Your task to perform on an android device: Clear all items from cart on bestbuy.com. Search for "razer thresher" on bestbuy.com, select the first entry, add it to the cart, then select checkout. Image 0: 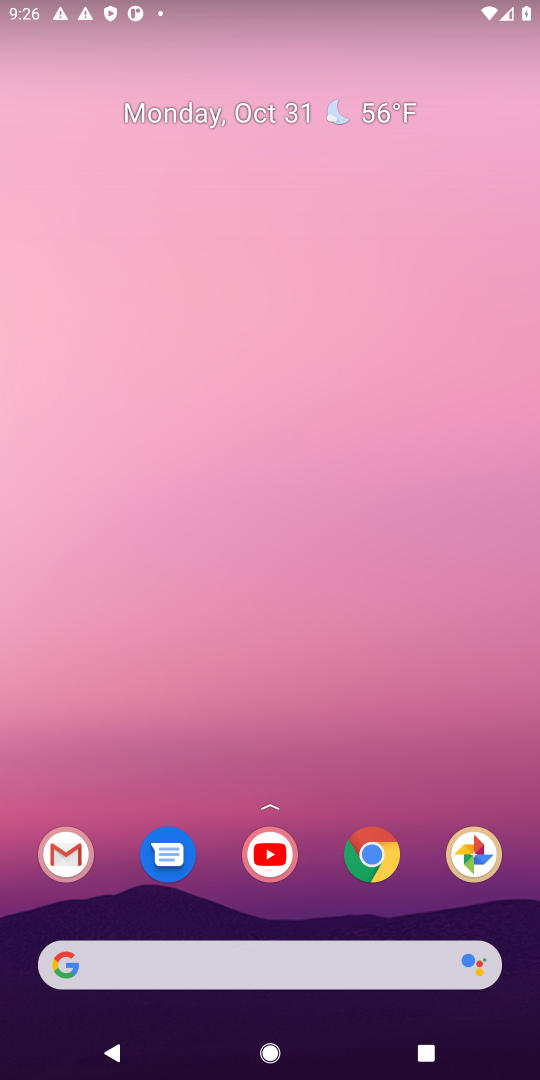
Step 0: click (301, 980)
Your task to perform on an android device: Clear all items from cart on bestbuy.com. Search for "razer thresher" on bestbuy.com, select the first entry, add it to the cart, then select checkout. Image 1: 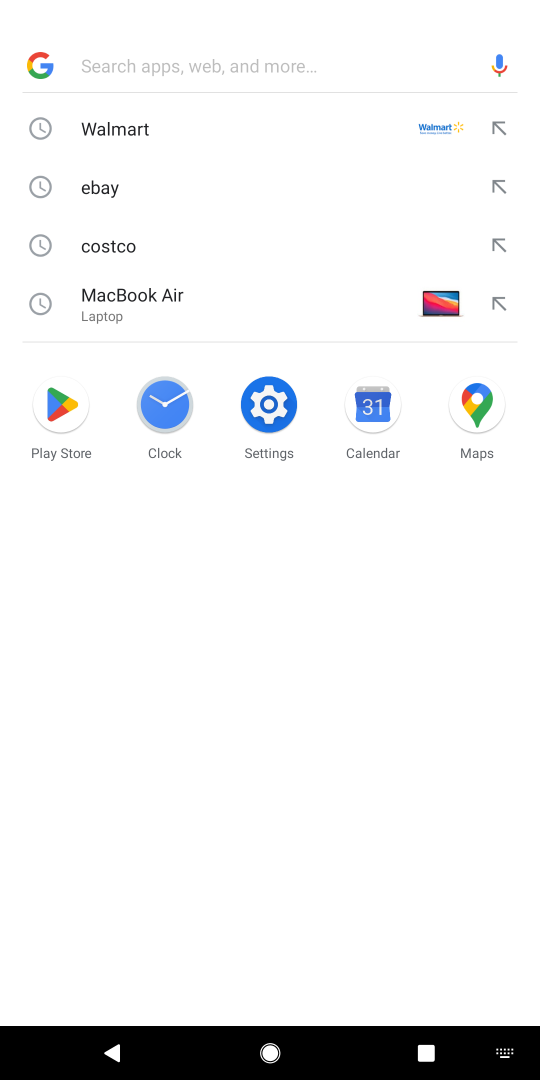
Step 1: type "bestbuy"
Your task to perform on an android device: Clear all items from cart on bestbuy.com. Search for "razer thresher" on bestbuy.com, select the first entry, add it to the cart, then select checkout. Image 2: 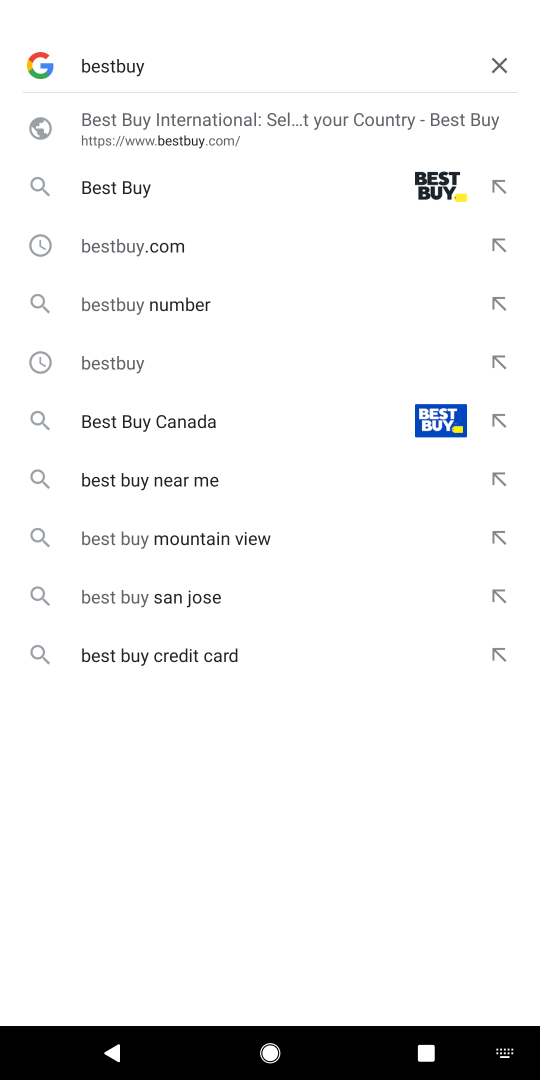
Step 2: click (172, 134)
Your task to perform on an android device: Clear all items from cart on bestbuy.com. Search for "razer thresher" on bestbuy.com, select the first entry, add it to the cart, then select checkout. Image 3: 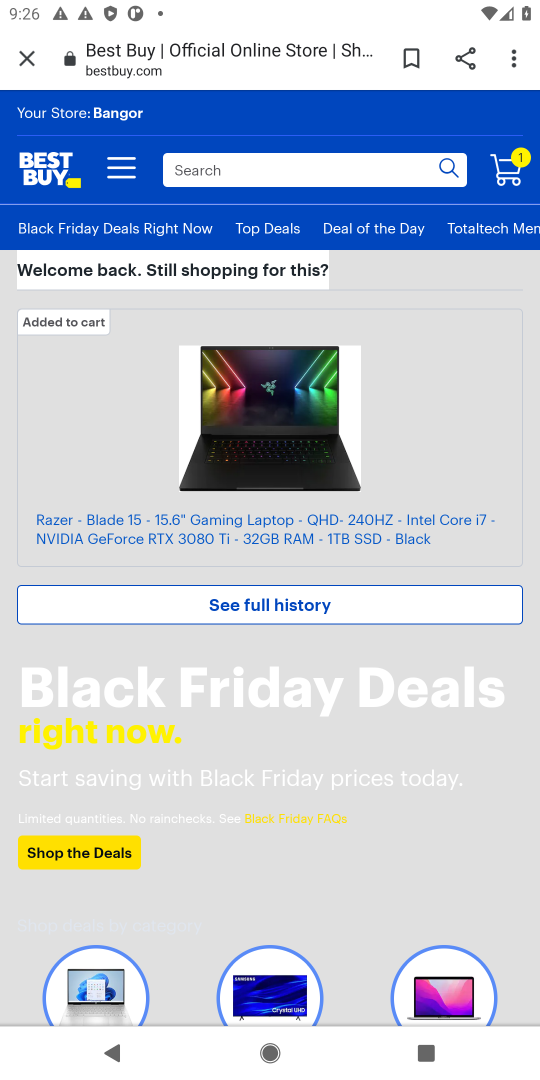
Step 3: click (198, 180)
Your task to perform on an android device: Clear all items from cart on bestbuy.com. Search for "razer thresher" on bestbuy.com, select the first entry, add it to the cart, then select checkout. Image 4: 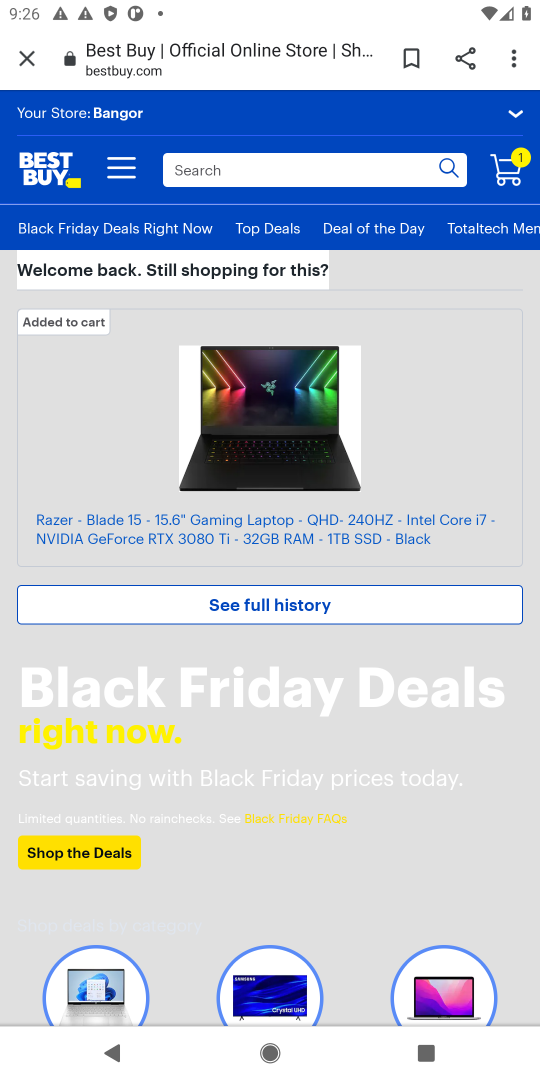
Step 4: type "razer thresher"
Your task to perform on an android device: Clear all items from cart on bestbuy.com. Search for "razer thresher" on bestbuy.com, select the first entry, add it to the cart, then select checkout. Image 5: 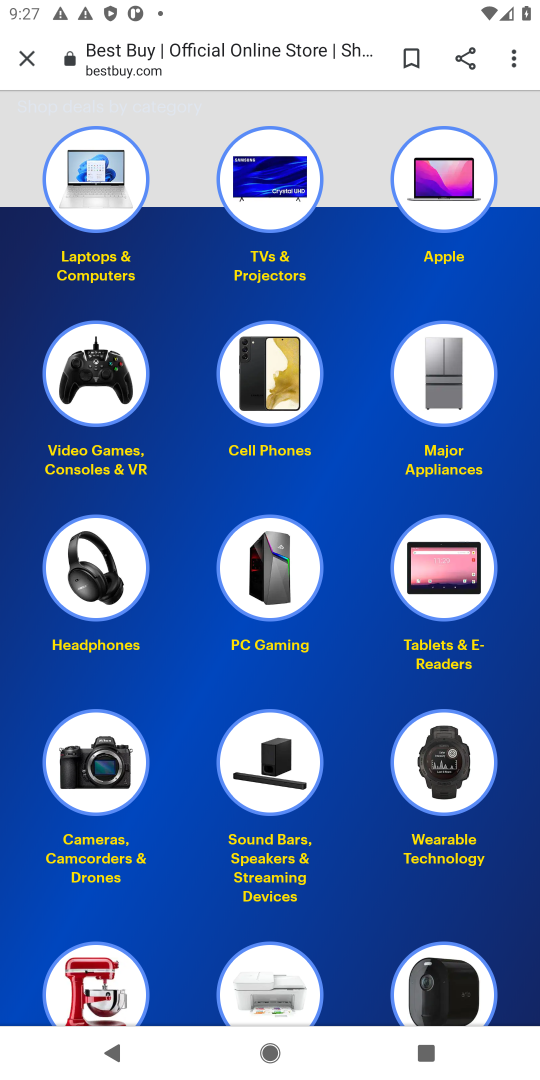
Step 5: task complete